Your task to perform on an android device: Open Chrome and go to the settings page Image 0: 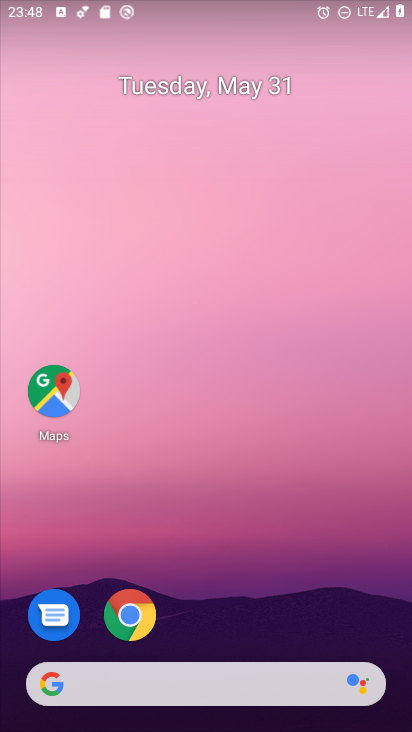
Step 0: click (131, 614)
Your task to perform on an android device: Open Chrome and go to the settings page Image 1: 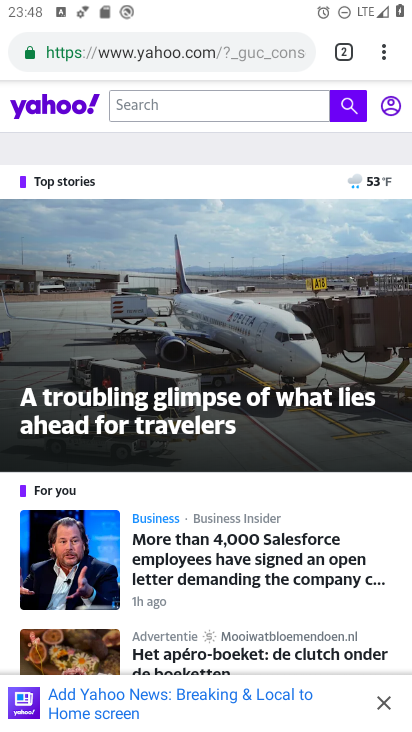
Step 1: click (384, 57)
Your task to perform on an android device: Open Chrome and go to the settings page Image 2: 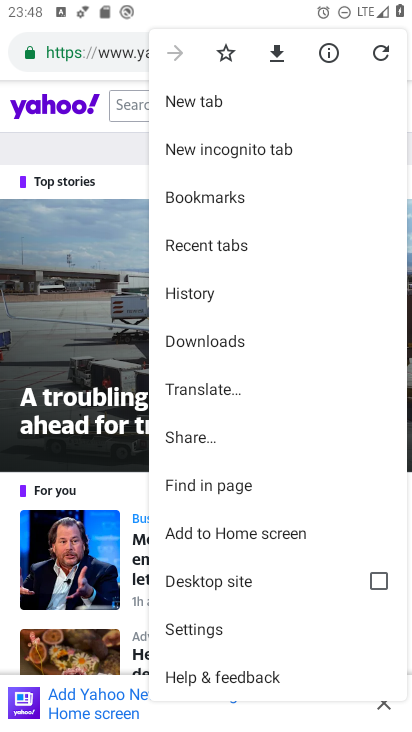
Step 2: click (222, 623)
Your task to perform on an android device: Open Chrome and go to the settings page Image 3: 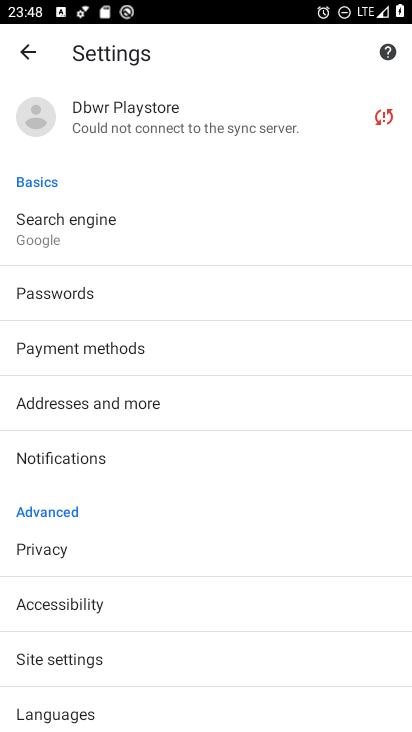
Step 3: task complete